Your task to perform on an android device: Open Yahoo.com Image 0: 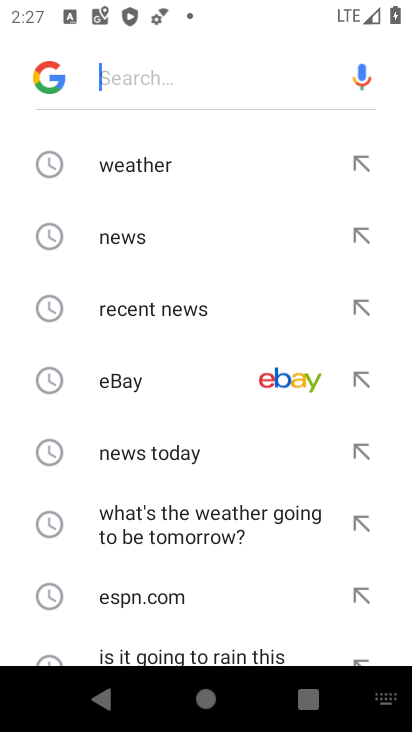
Step 0: press home button
Your task to perform on an android device: Open Yahoo.com Image 1: 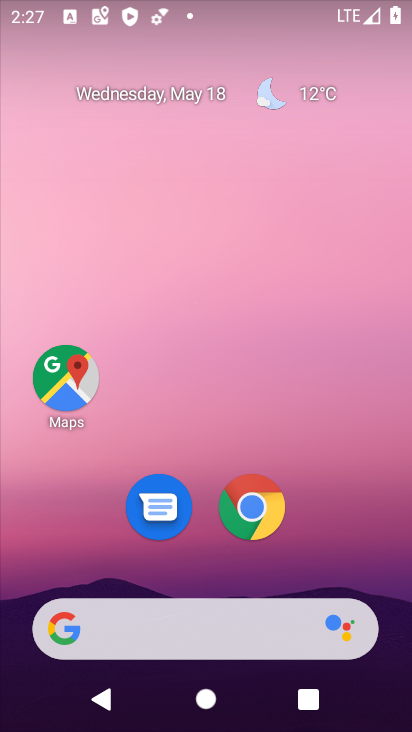
Step 1: click (251, 502)
Your task to perform on an android device: Open Yahoo.com Image 2: 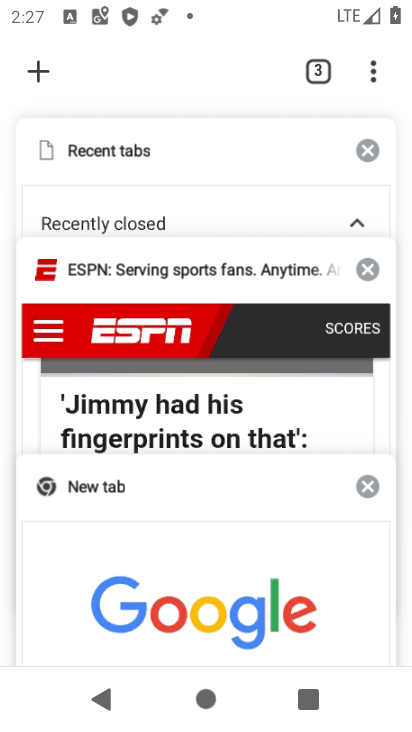
Step 2: click (35, 64)
Your task to perform on an android device: Open Yahoo.com Image 3: 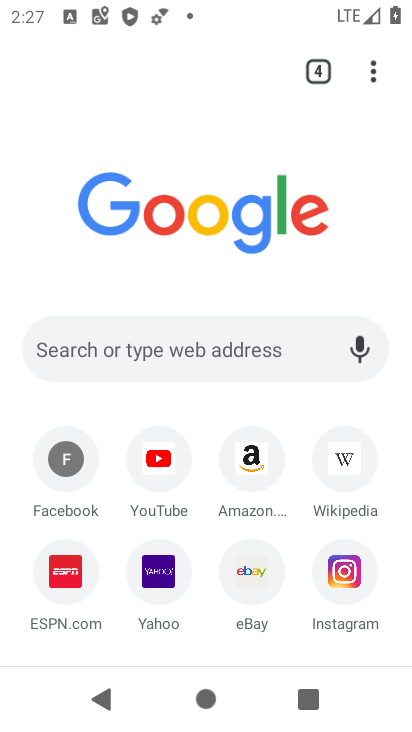
Step 3: click (170, 354)
Your task to perform on an android device: Open Yahoo.com Image 4: 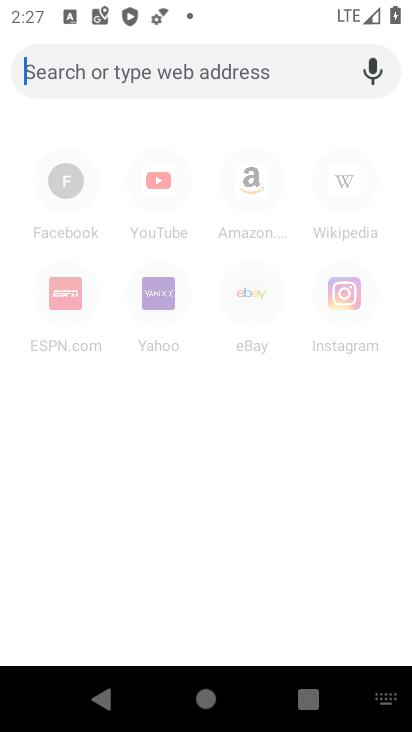
Step 4: type "yahoo.com"
Your task to perform on an android device: Open Yahoo.com Image 5: 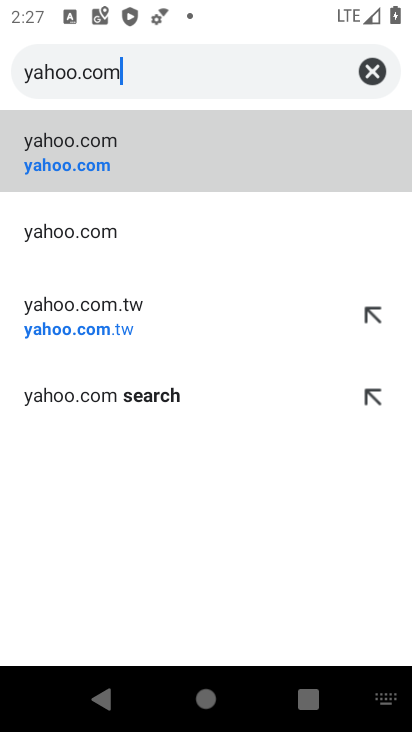
Step 5: click (91, 134)
Your task to perform on an android device: Open Yahoo.com Image 6: 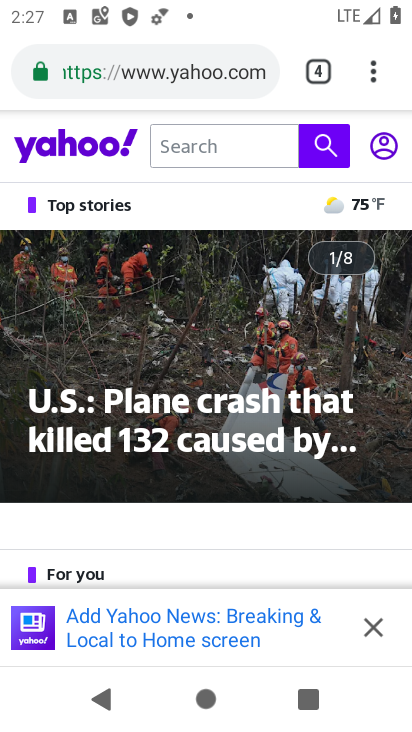
Step 6: task complete